Your task to perform on an android device: Open Google Chrome Image 0: 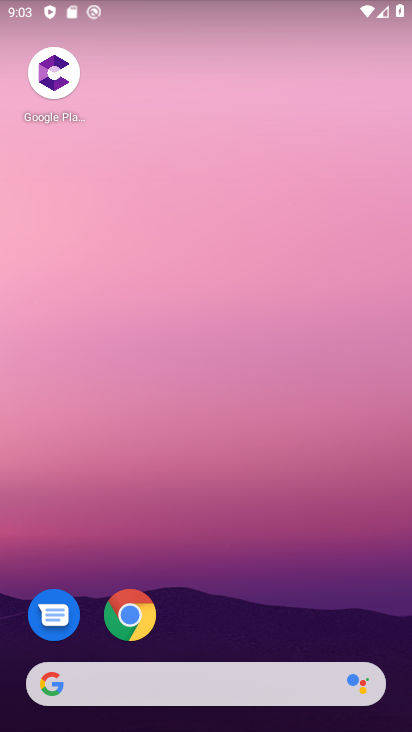
Step 0: click (135, 614)
Your task to perform on an android device: Open Google Chrome Image 1: 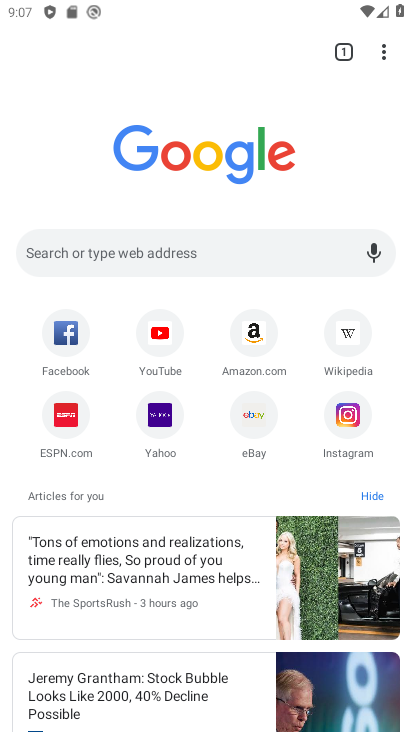
Step 1: task complete